Your task to perform on an android device: uninstall "Gmail" Image 0: 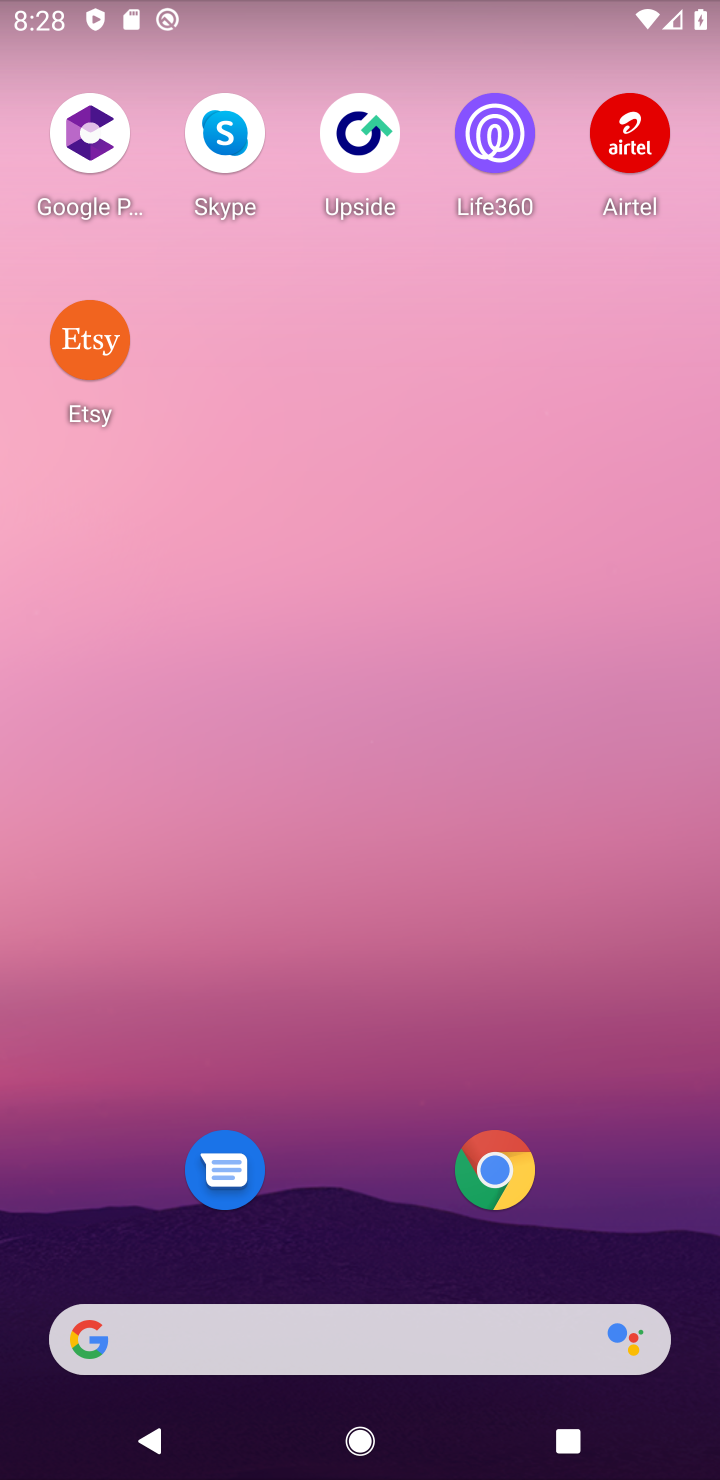
Step 0: drag from (464, 497) to (493, 59)
Your task to perform on an android device: uninstall "Gmail" Image 1: 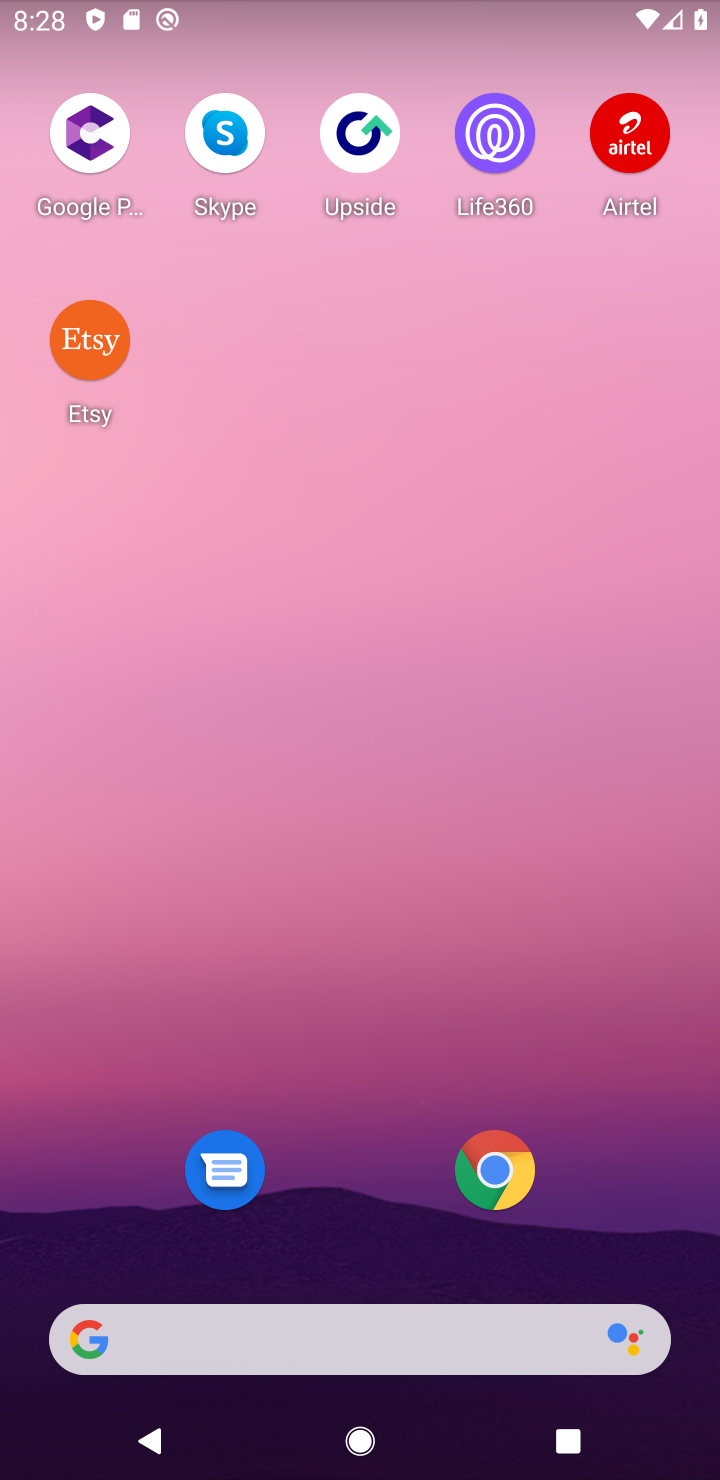
Step 1: drag from (380, 1026) to (457, 221)
Your task to perform on an android device: uninstall "Gmail" Image 2: 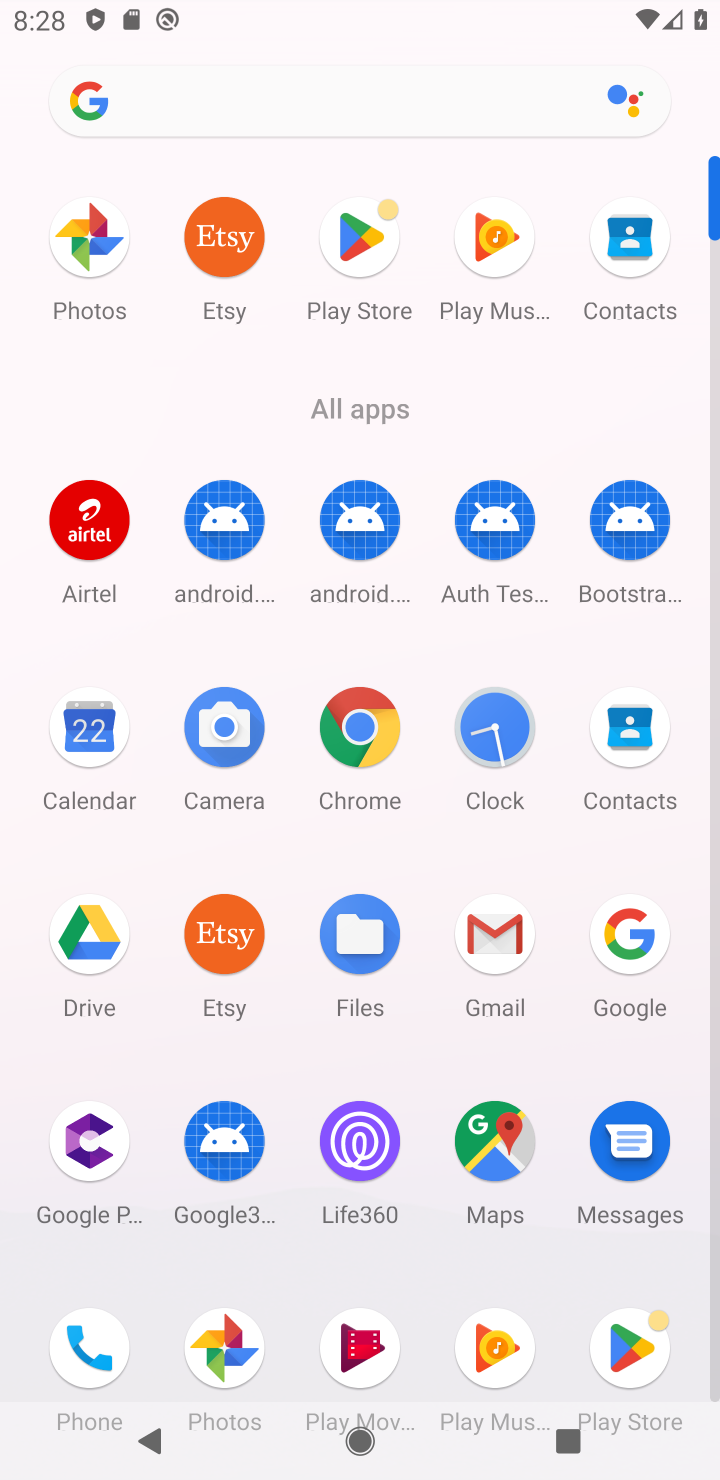
Step 2: click (390, 240)
Your task to perform on an android device: uninstall "Gmail" Image 3: 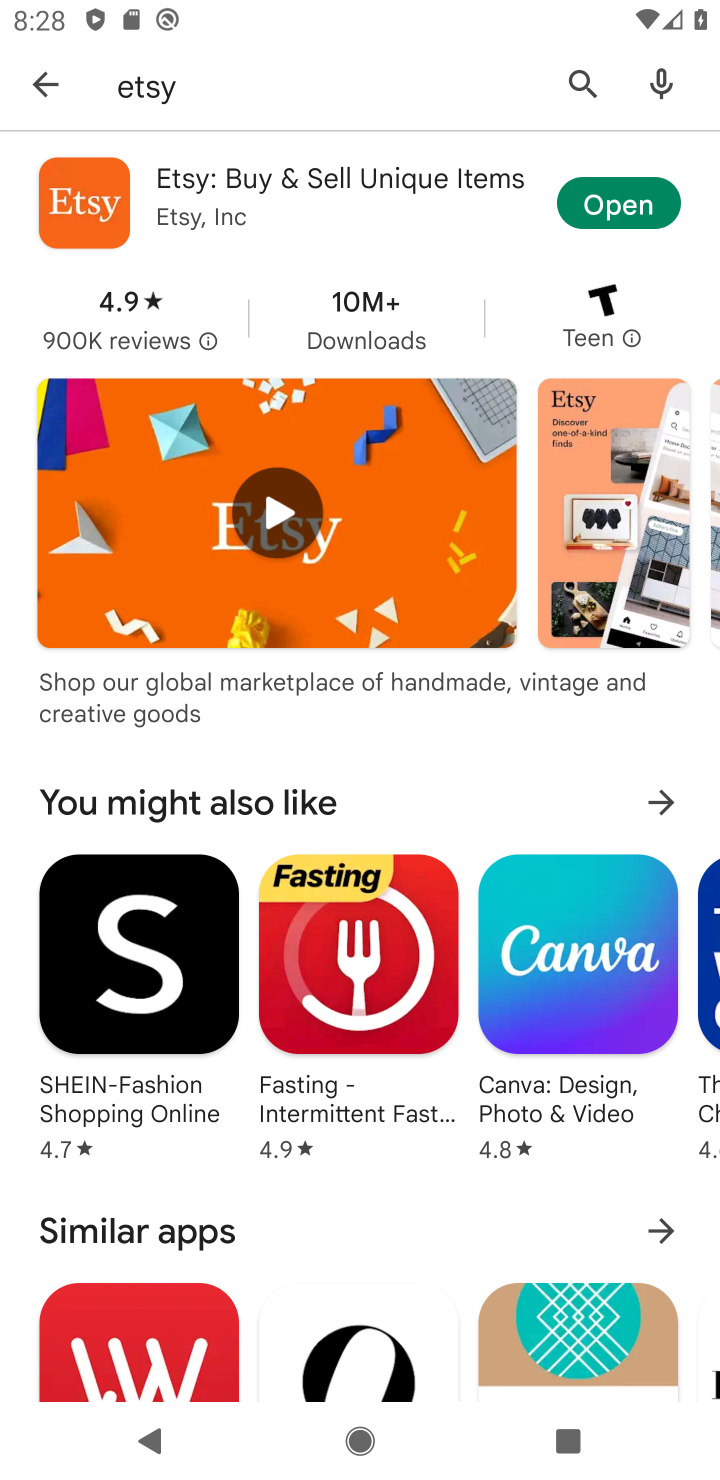
Step 3: click (576, 72)
Your task to perform on an android device: uninstall "Gmail" Image 4: 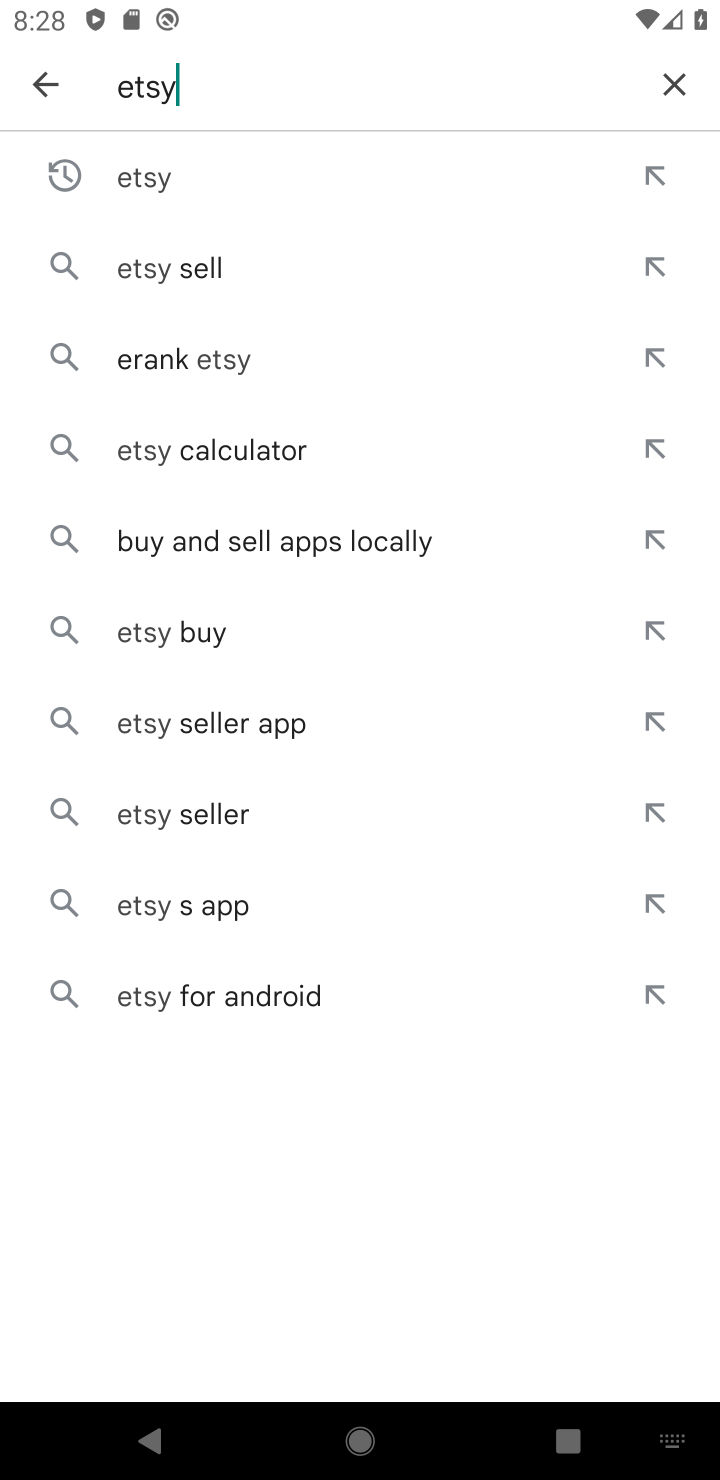
Step 4: click (682, 95)
Your task to perform on an android device: uninstall "Gmail" Image 5: 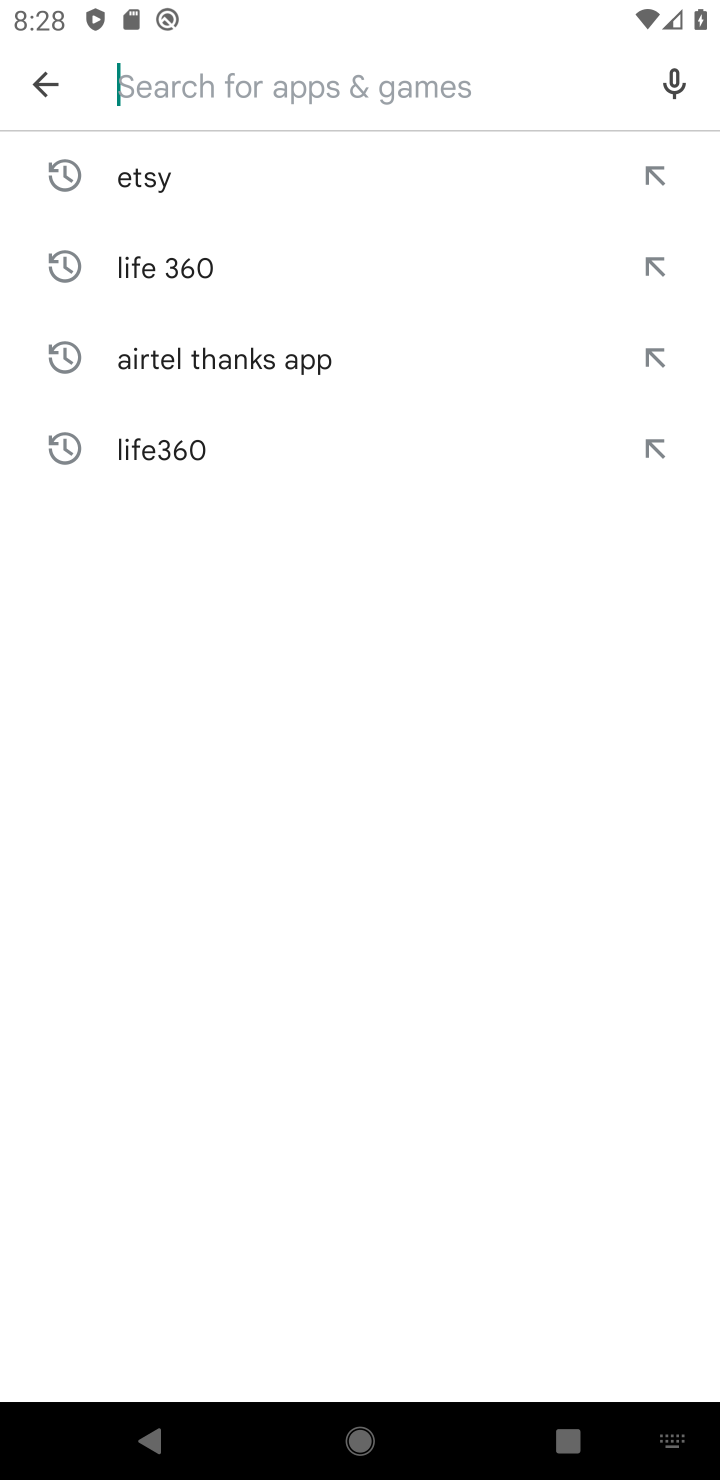
Step 5: click (179, 79)
Your task to perform on an android device: uninstall "Gmail" Image 6: 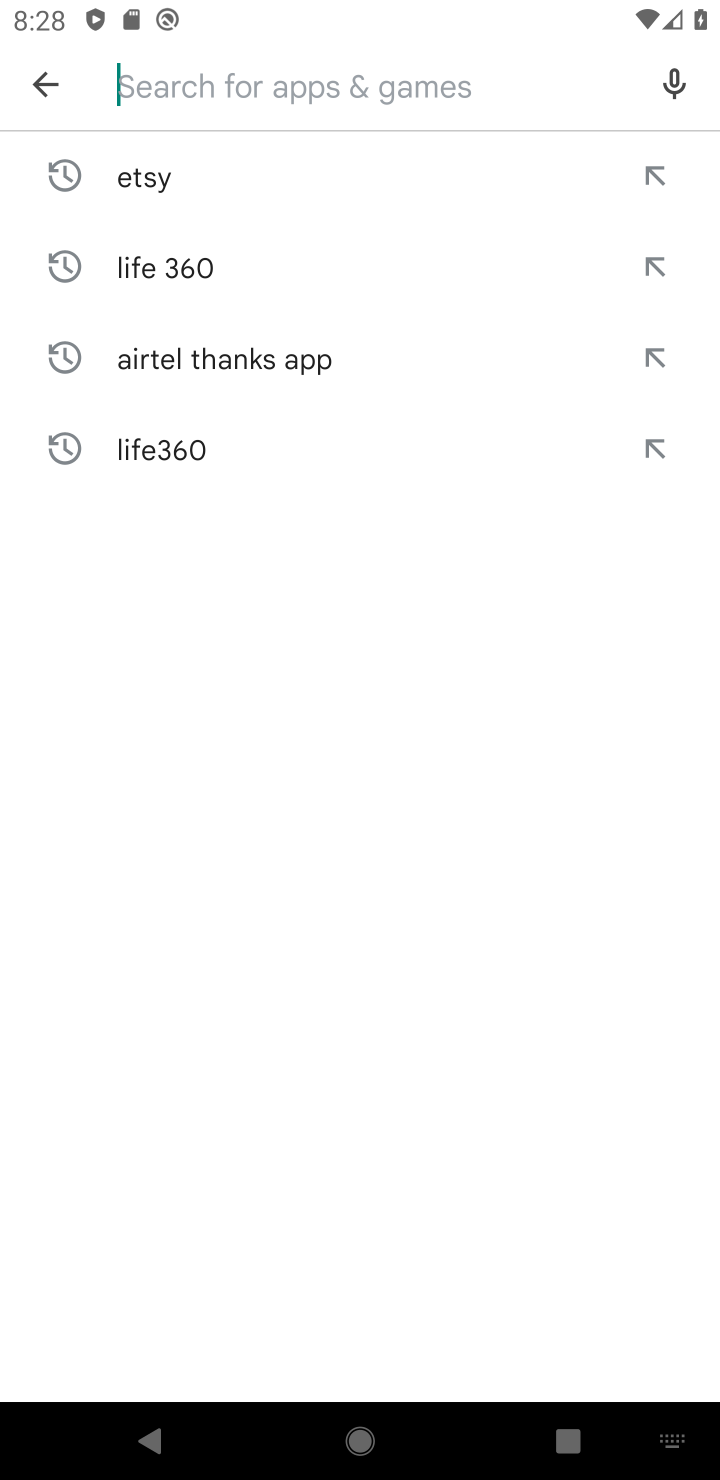
Step 6: type "gmail"
Your task to perform on an android device: uninstall "Gmail" Image 7: 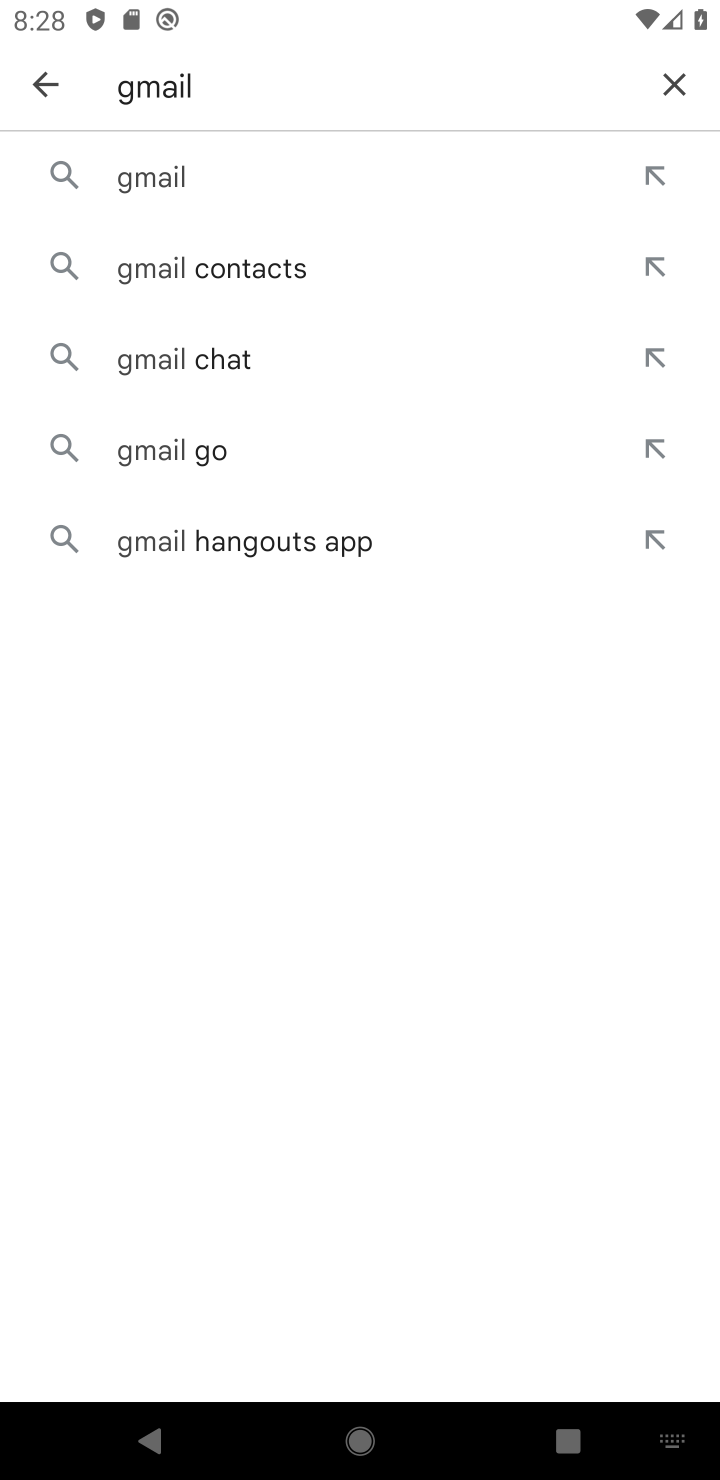
Step 7: click (127, 160)
Your task to perform on an android device: uninstall "Gmail" Image 8: 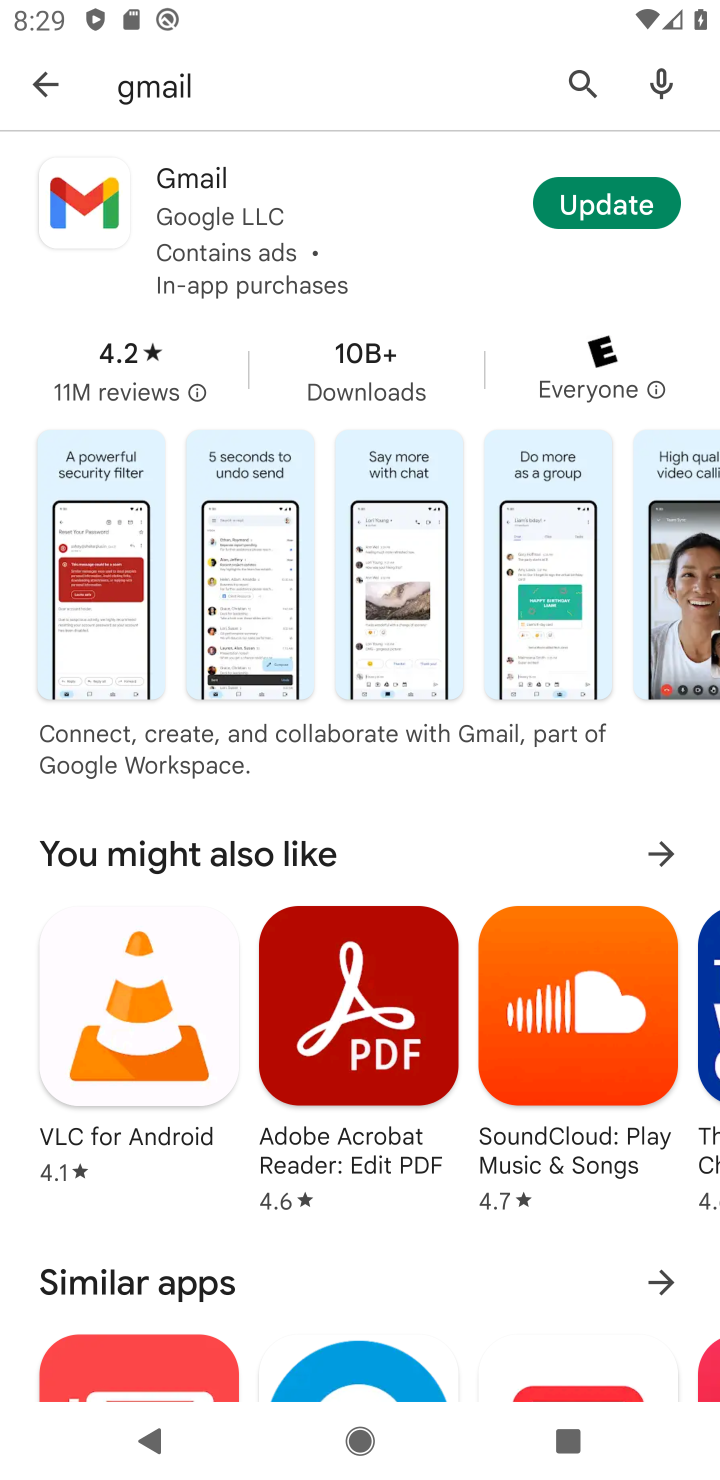
Step 8: click (247, 198)
Your task to perform on an android device: uninstall "Gmail" Image 9: 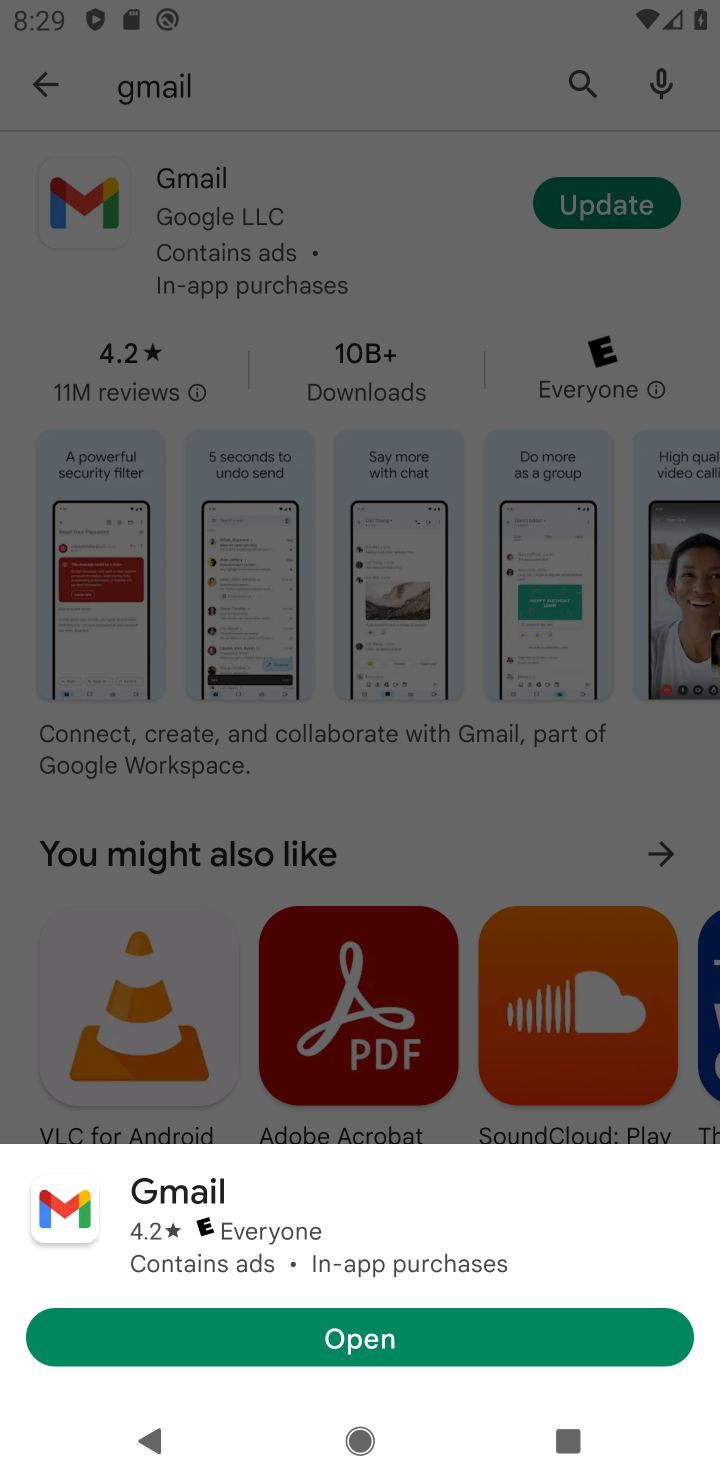
Step 9: click (347, 162)
Your task to perform on an android device: uninstall "Gmail" Image 10: 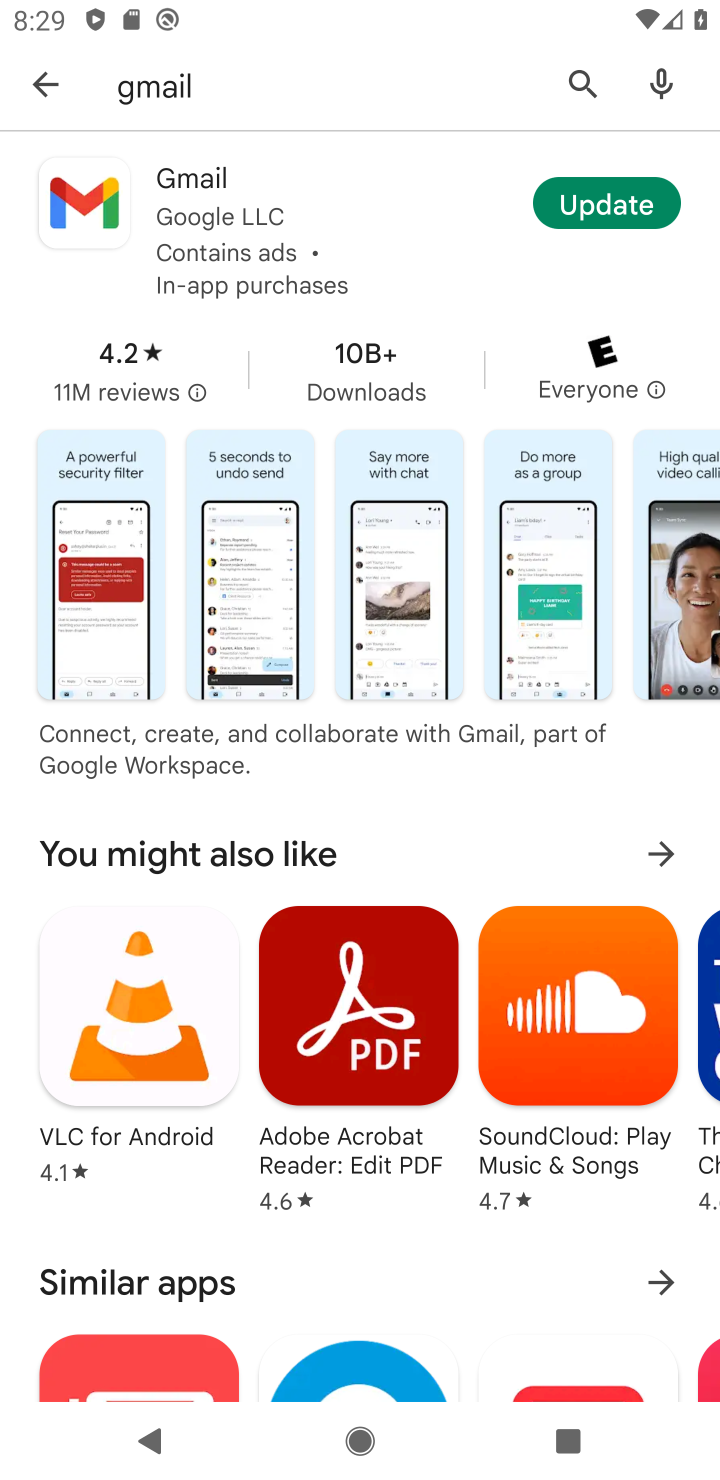
Step 10: click (398, 206)
Your task to perform on an android device: uninstall "Gmail" Image 11: 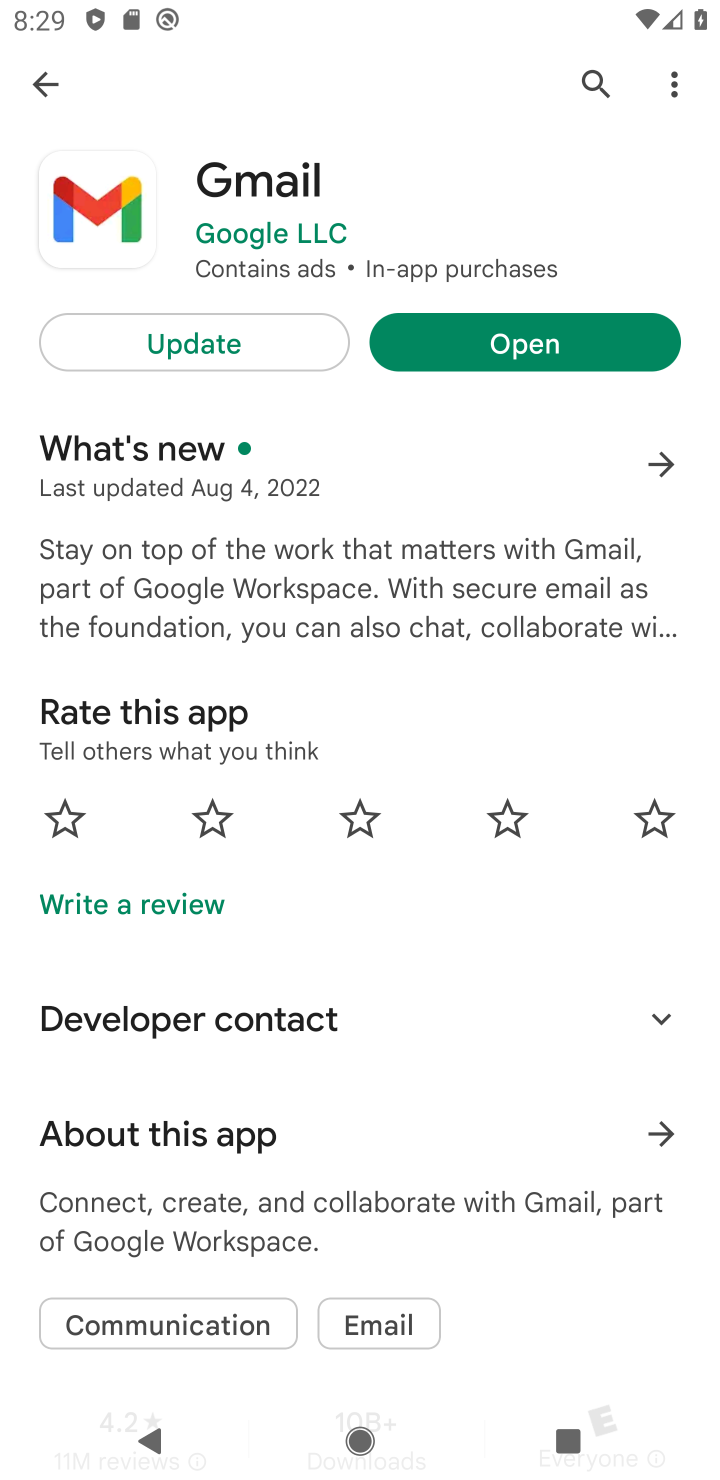
Step 11: task complete